Your task to perform on an android device: turn on data saver in the chrome app Image 0: 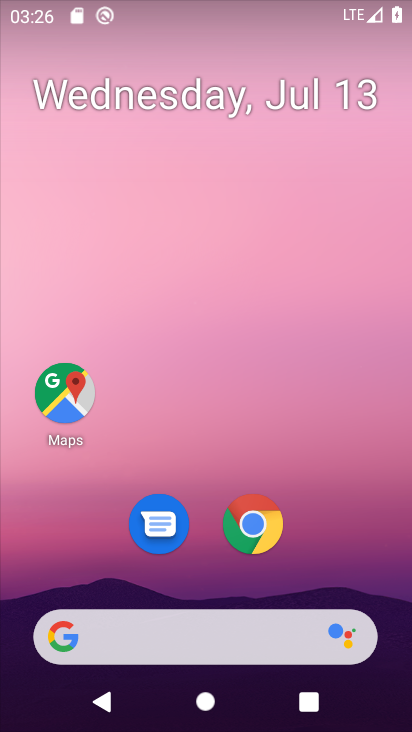
Step 0: click (266, 516)
Your task to perform on an android device: turn on data saver in the chrome app Image 1: 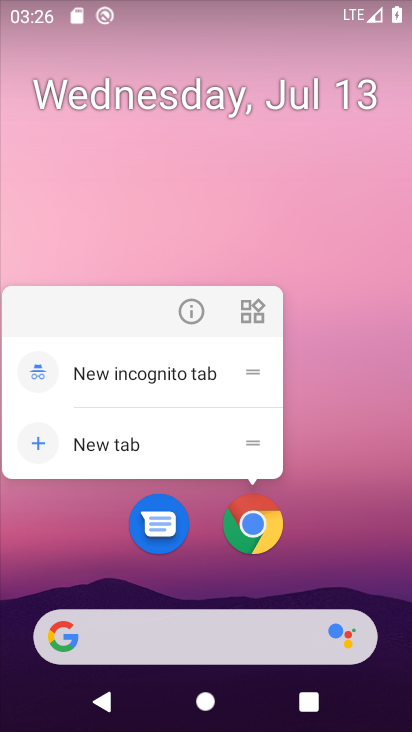
Step 1: click (266, 516)
Your task to perform on an android device: turn on data saver in the chrome app Image 2: 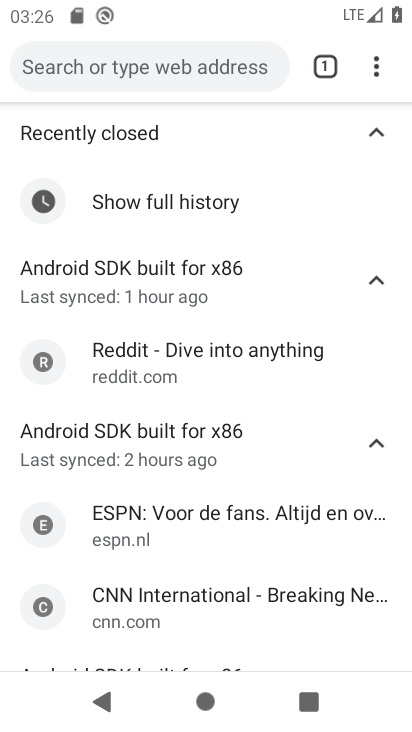
Step 2: click (377, 65)
Your task to perform on an android device: turn on data saver in the chrome app Image 3: 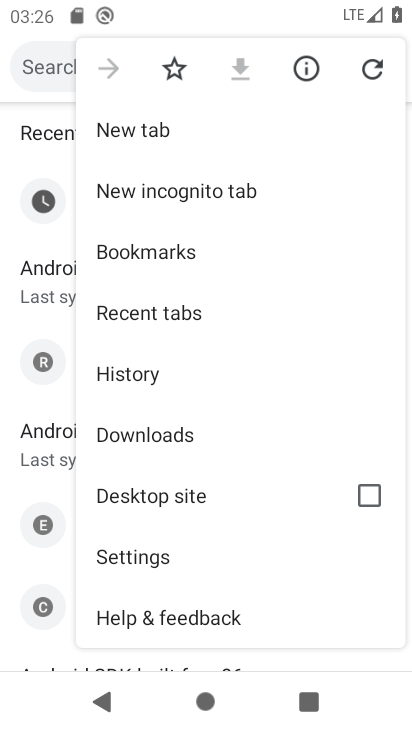
Step 3: click (159, 550)
Your task to perform on an android device: turn on data saver in the chrome app Image 4: 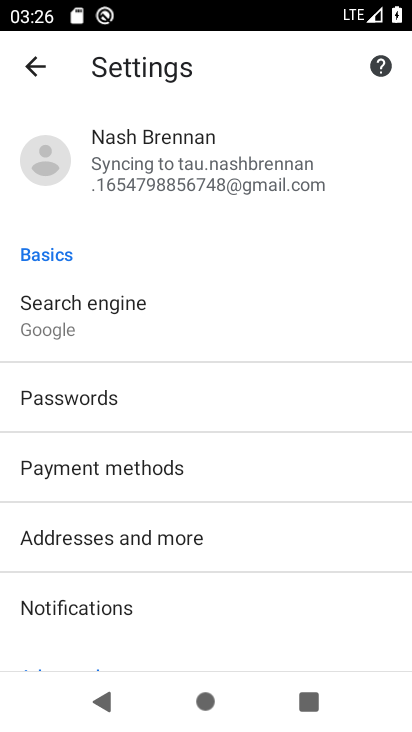
Step 4: drag from (223, 582) to (225, 81)
Your task to perform on an android device: turn on data saver in the chrome app Image 5: 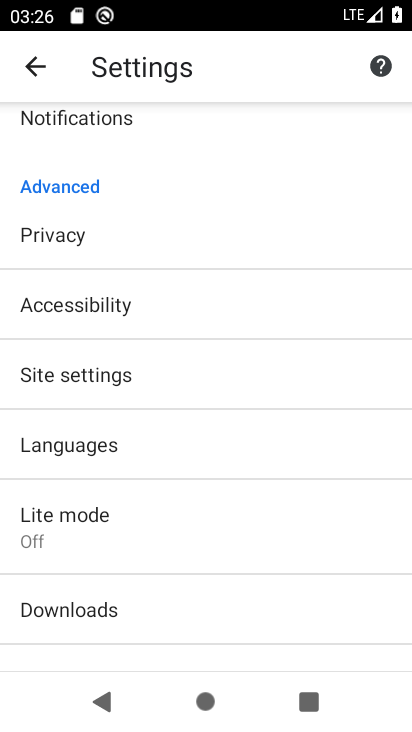
Step 5: click (91, 517)
Your task to perform on an android device: turn on data saver in the chrome app Image 6: 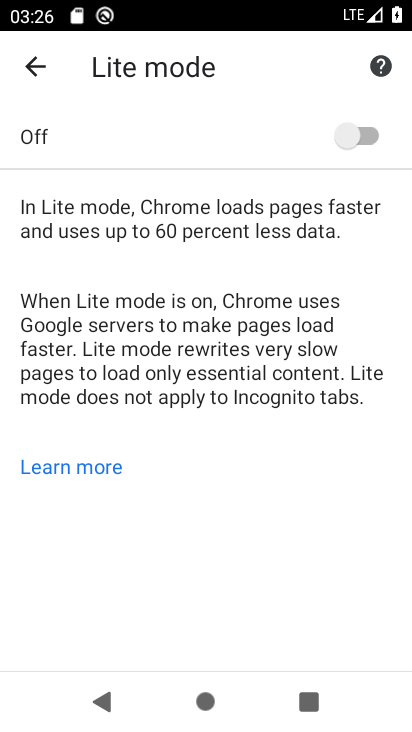
Step 6: click (368, 137)
Your task to perform on an android device: turn on data saver in the chrome app Image 7: 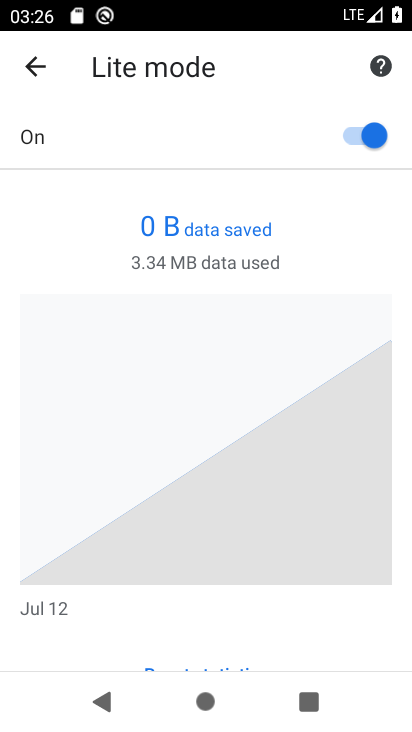
Step 7: task complete